Your task to perform on an android device: find snoozed emails in the gmail app Image 0: 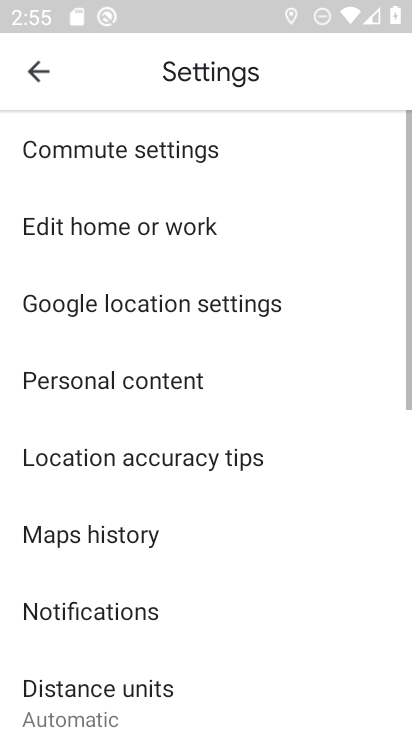
Step 0: press home button
Your task to perform on an android device: find snoozed emails in the gmail app Image 1: 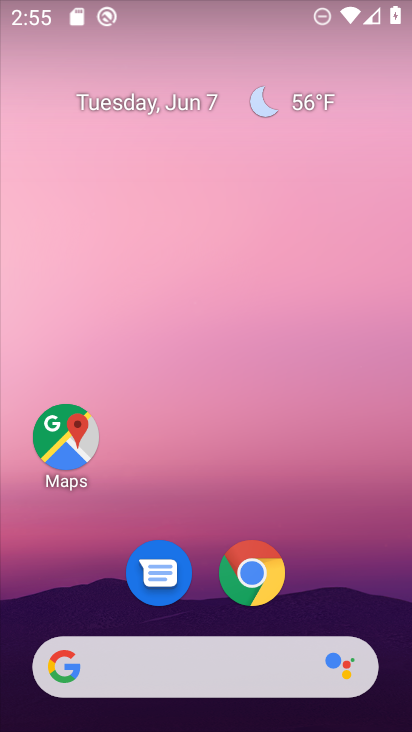
Step 1: drag from (316, 596) to (328, 5)
Your task to perform on an android device: find snoozed emails in the gmail app Image 2: 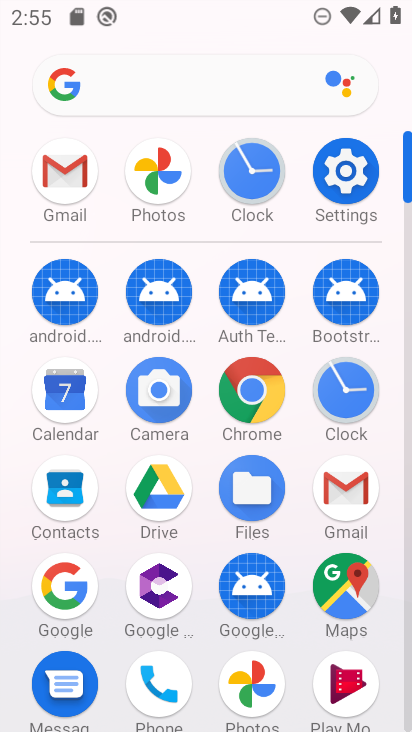
Step 2: click (347, 481)
Your task to perform on an android device: find snoozed emails in the gmail app Image 3: 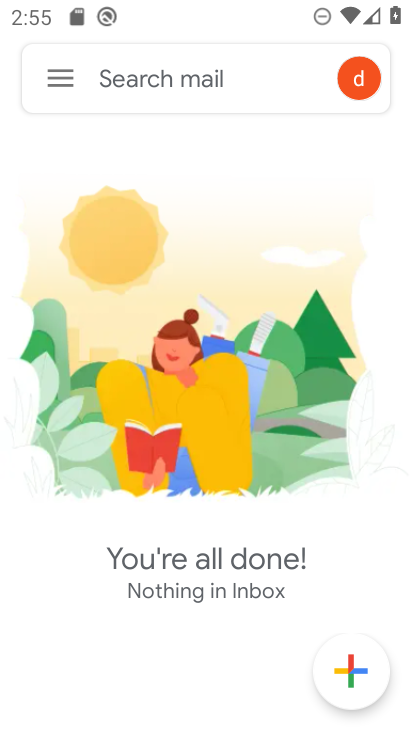
Step 3: click (55, 77)
Your task to perform on an android device: find snoozed emails in the gmail app Image 4: 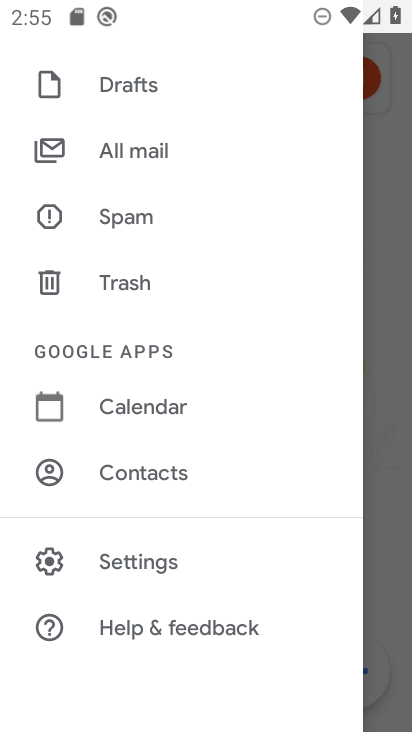
Step 4: drag from (172, 158) to (249, 632)
Your task to perform on an android device: find snoozed emails in the gmail app Image 5: 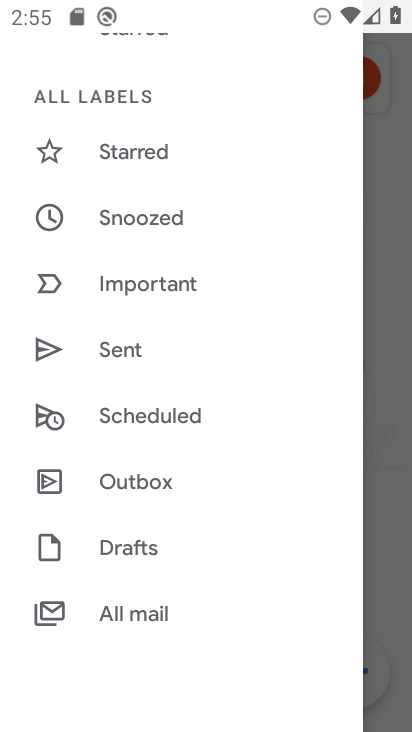
Step 5: click (179, 228)
Your task to perform on an android device: find snoozed emails in the gmail app Image 6: 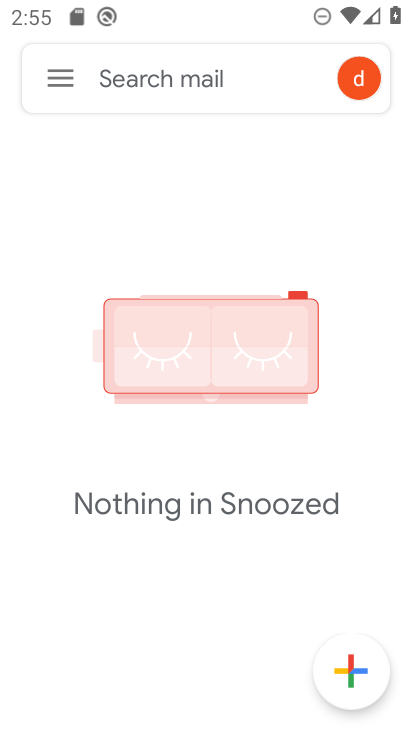
Step 6: task complete